Your task to perform on an android device: change your default location settings in chrome Image 0: 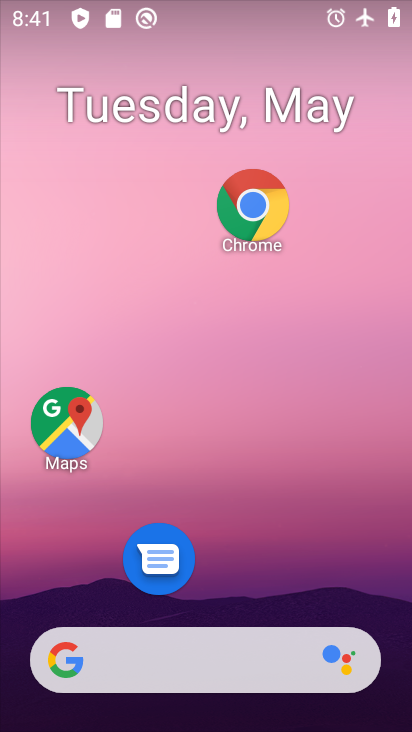
Step 0: click (267, 228)
Your task to perform on an android device: change your default location settings in chrome Image 1: 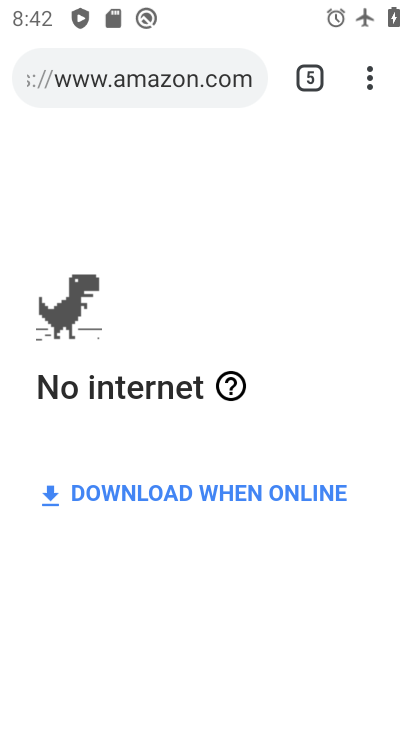
Step 1: click (377, 75)
Your task to perform on an android device: change your default location settings in chrome Image 2: 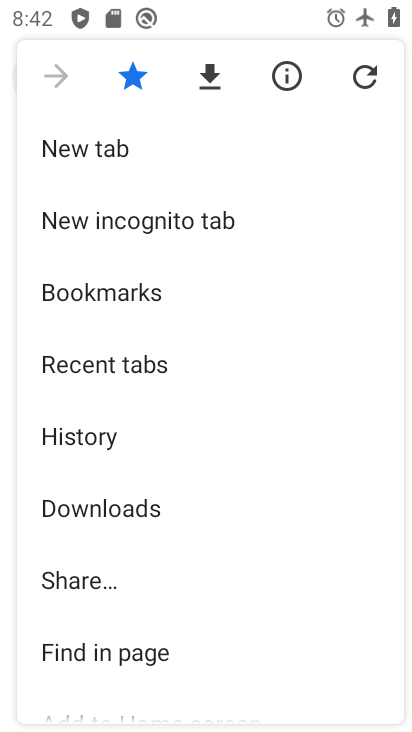
Step 2: drag from (164, 625) to (234, 311)
Your task to perform on an android device: change your default location settings in chrome Image 3: 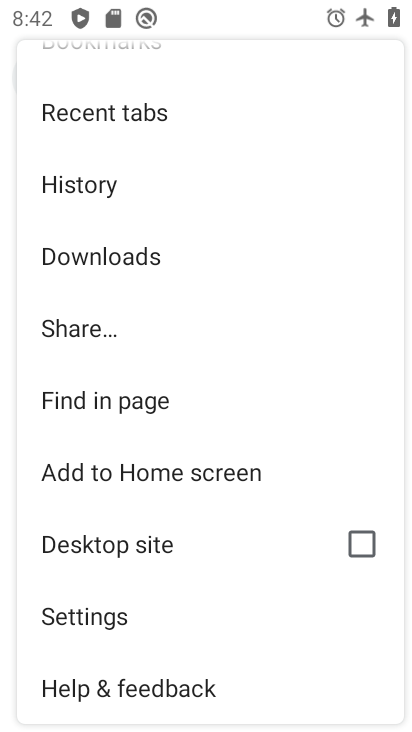
Step 3: drag from (222, 629) to (286, 349)
Your task to perform on an android device: change your default location settings in chrome Image 4: 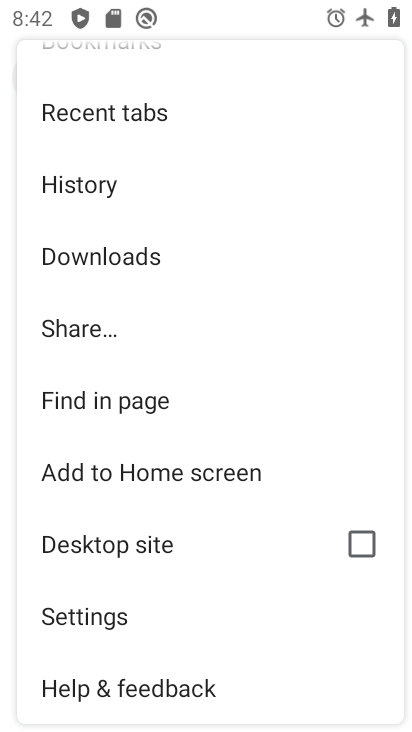
Step 4: click (141, 616)
Your task to perform on an android device: change your default location settings in chrome Image 5: 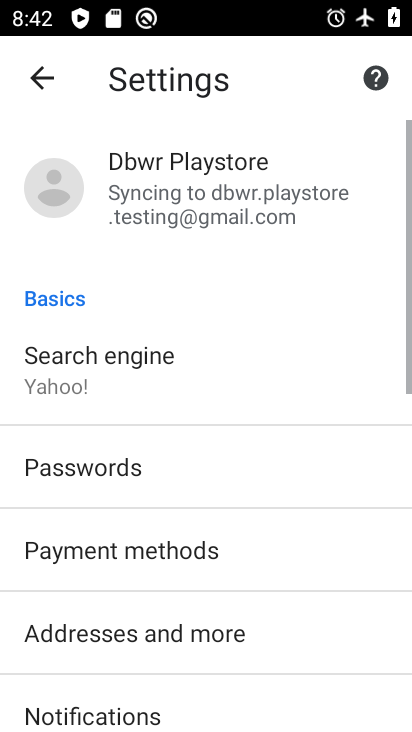
Step 5: drag from (141, 616) to (226, 171)
Your task to perform on an android device: change your default location settings in chrome Image 6: 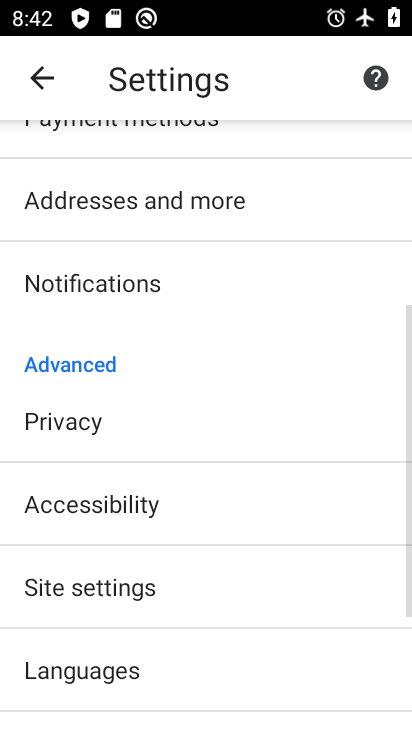
Step 6: click (84, 581)
Your task to perform on an android device: change your default location settings in chrome Image 7: 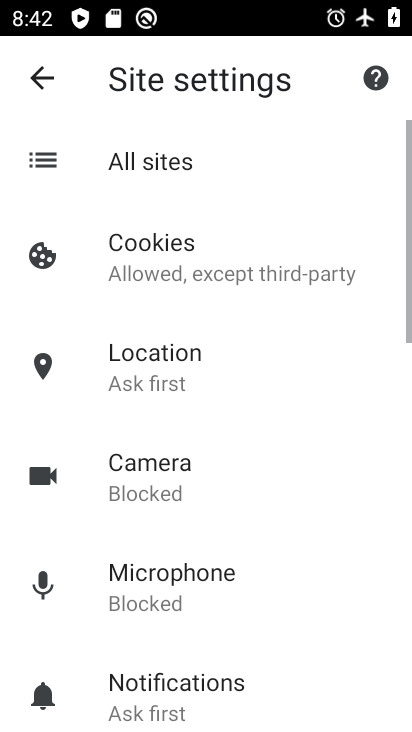
Step 7: click (116, 389)
Your task to perform on an android device: change your default location settings in chrome Image 8: 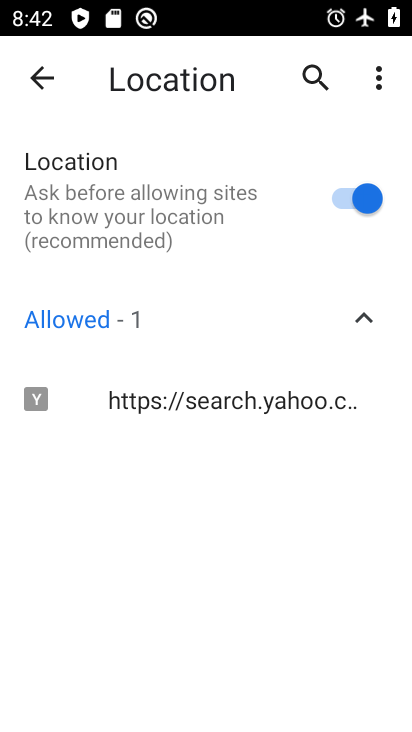
Step 8: click (336, 191)
Your task to perform on an android device: change your default location settings in chrome Image 9: 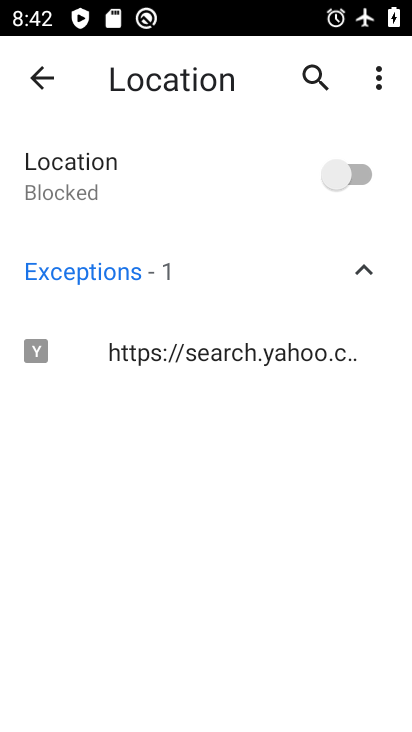
Step 9: task complete